Your task to perform on an android device: Show me the alarms in the clock app Image 0: 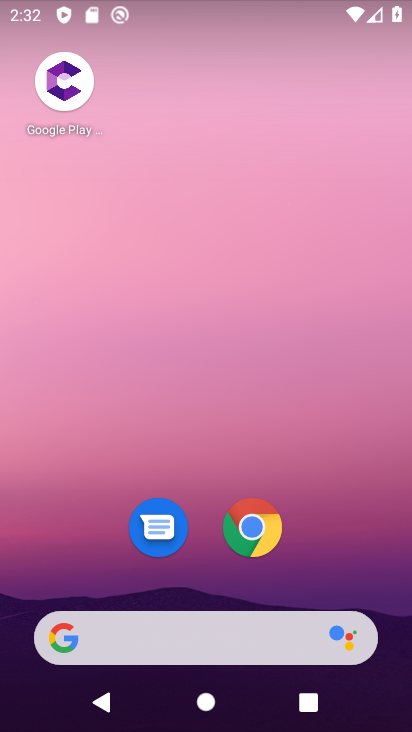
Step 0: drag from (256, 638) to (225, 154)
Your task to perform on an android device: Show me the alarms in the clock app Image 1: 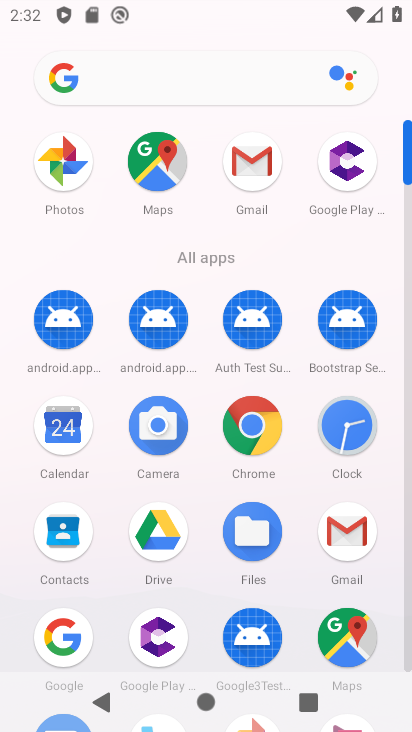
Step 1: drag from (216, 530) to (205, 268)
Your task to perform on an android device: Show me the alarms in the clock app Image 2: 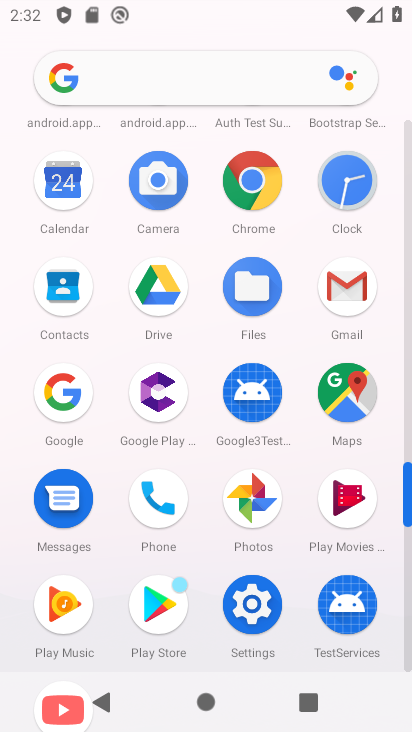
Step 2: click (214, 189)
Your task to perform on an android device: Show me the alarms in the clock app Image 3: 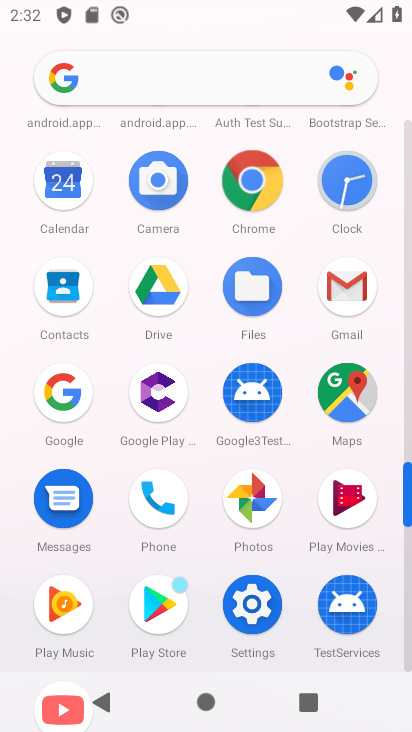
Step 3: drag from (223, 553) to (215, 214)
Your task to perform on an android device: Show me the alarms in the clock app Image 4: 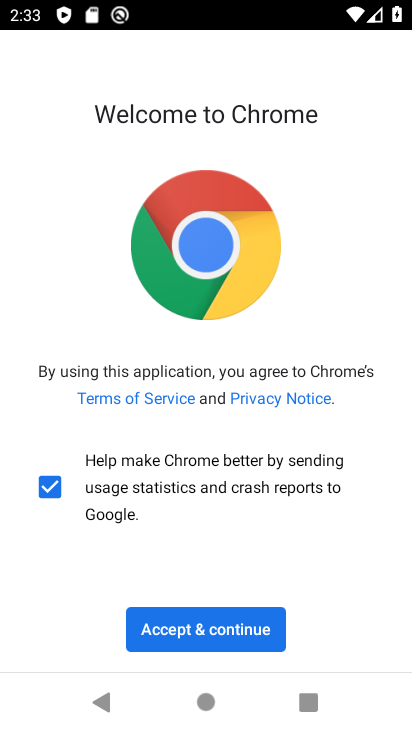
Step 4: click (200, 617)
Your task to perform on an android device: Show me the alarms in the clock app Image 5: 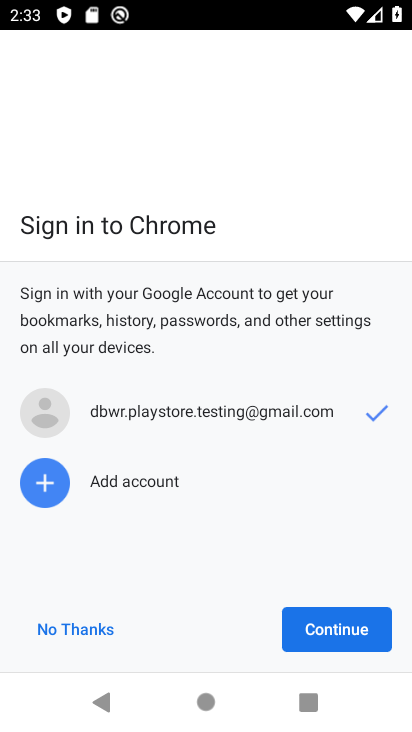
Step 5: click (323, 636)
Your task to perform on an android device: Show me the alarms in the clock app Image 6: 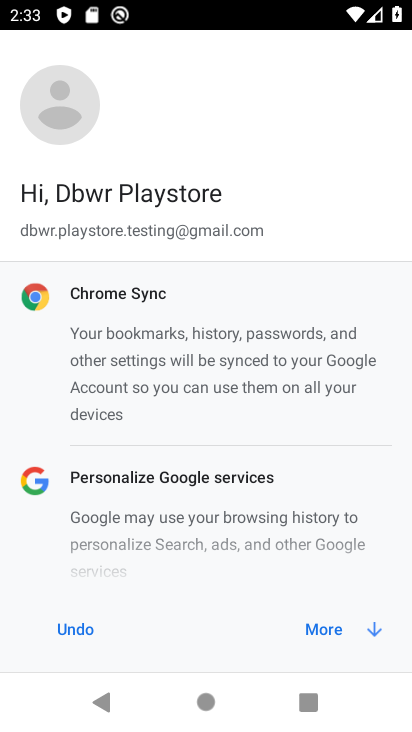
Step 6: click (338, 633)
Your task to perform on an android device: Show me the alarms in the clock app Image 7: 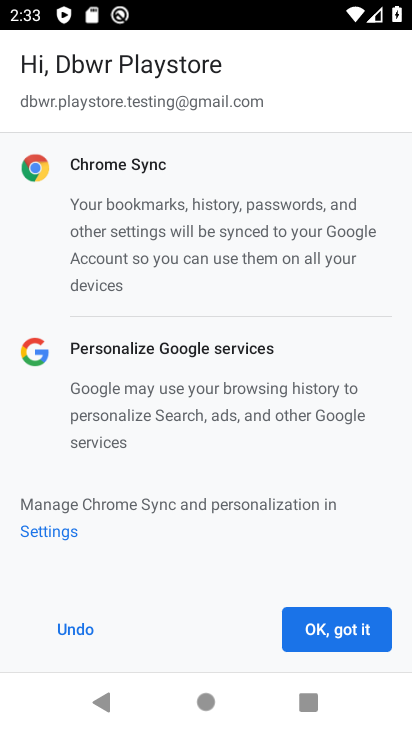
Step 7: click (338, 633)
Your task to perform on an android device: Show me the alarms in the clock app Image 8: 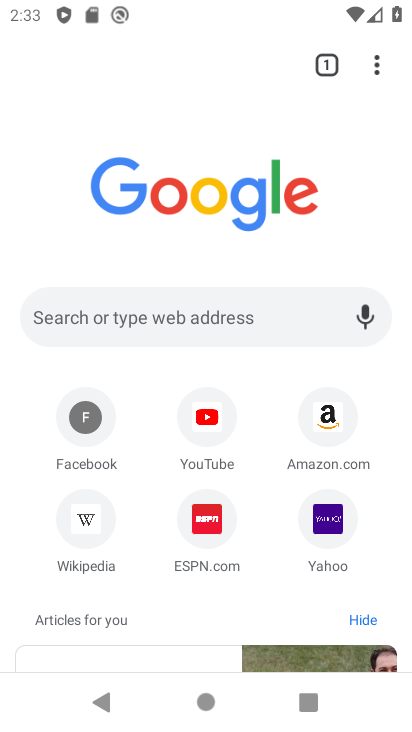
Step 8: drag from (275, 504) to (273, 233)
Your task to perform on an android device: Show me the alarms in the clock app Image 9: 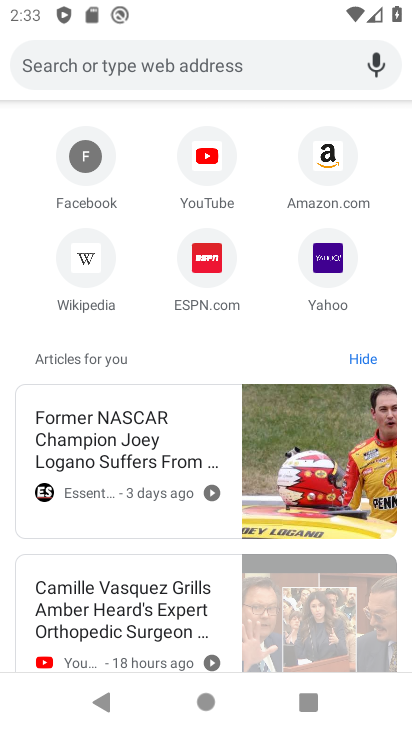
Step 9: drag from (254, 502) to (267, 258)
Your task to perform on an android device: Show me the alarms in the clock app Image 10: 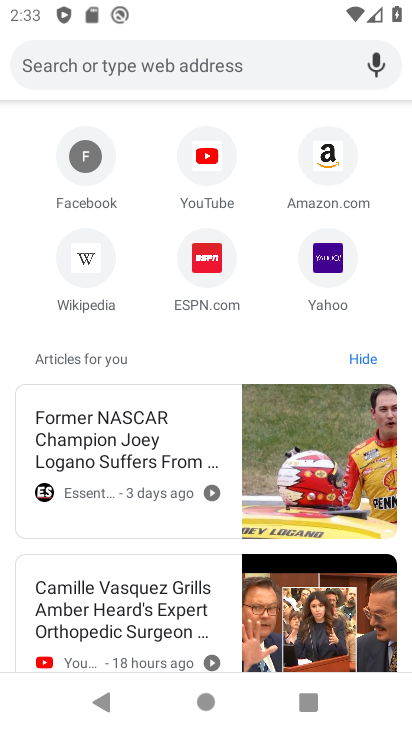
Step 10: press back button
Your task to perform on an android device: Show me the alarms in the clock app Image 11: 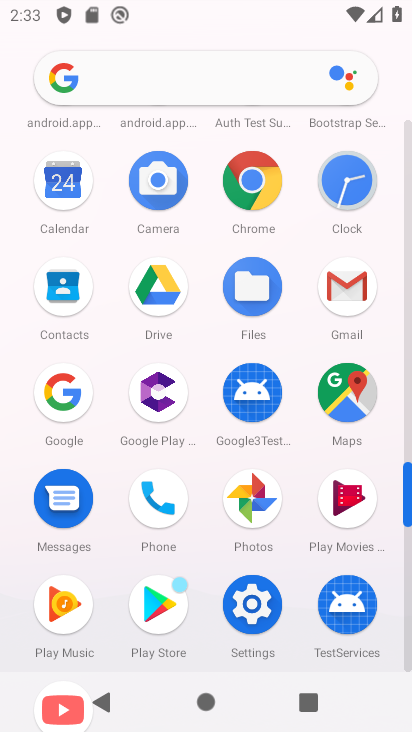
Step 11: click (339, 185)
Your task to perform on an android device: Show me the alarms in the clock app Image 12: 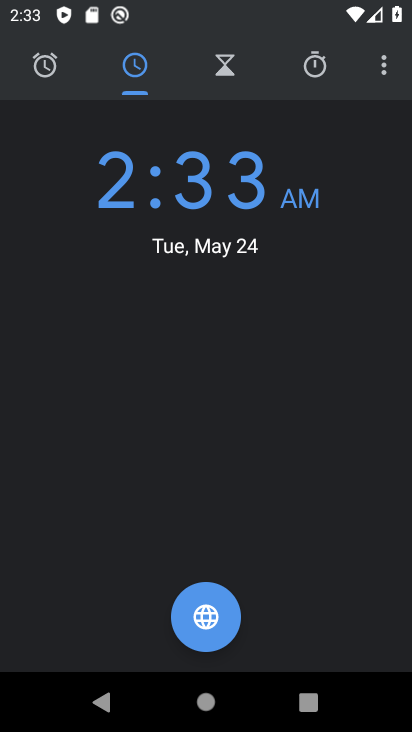
Step 12: click (385, 65)
Your task to perform on an android device: Show me the alarms in the clock app Image 13: 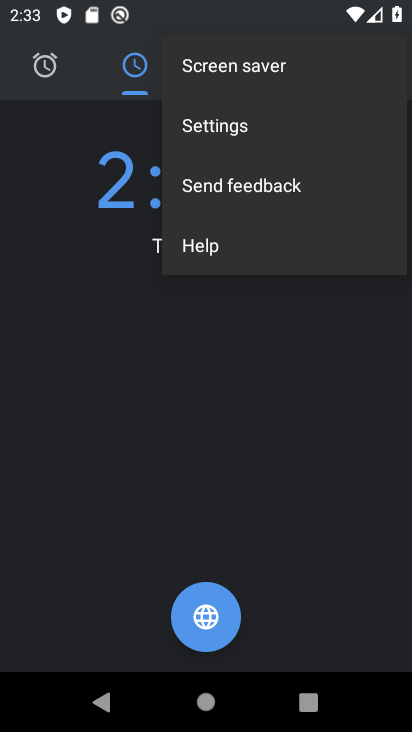
Step 13: click (201, 121)
Your task to perform on an android device: Show me the alarms in the clock app Image 14: 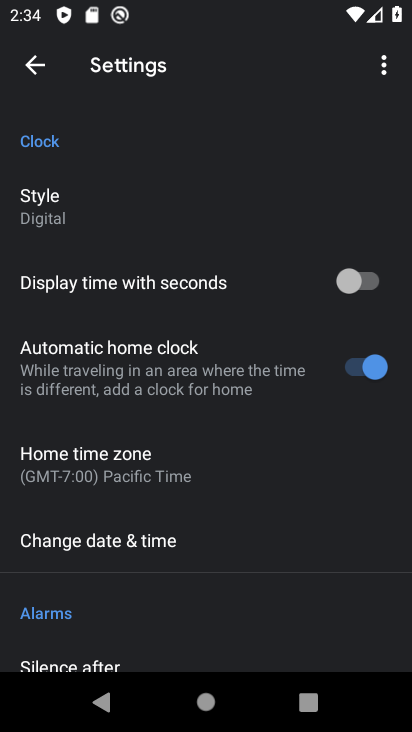
Step 14: click (17, 60)
Your task to perform on an android device: Show me the alarms in the clock app Image 15: 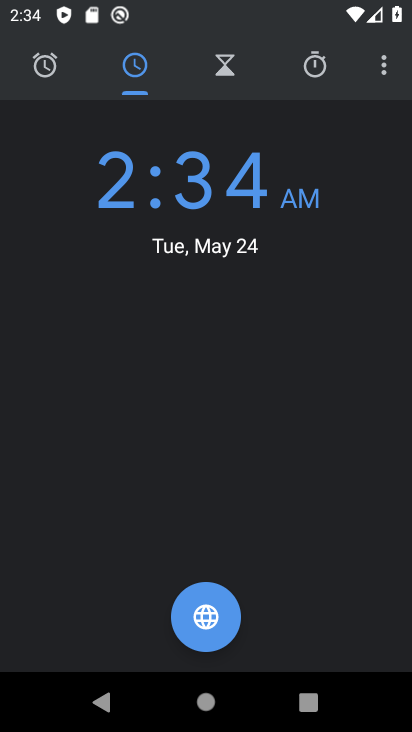
Step 15: click (52, 68)
Your task to perform on an android device: Show me the alarms in the clock app Image 16: 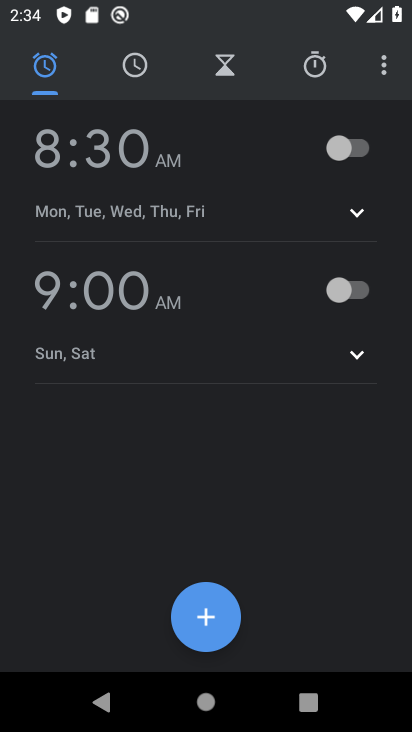
Step 16: task complete